Your task to perform on an android device: create a new album in the google photos Image 0: 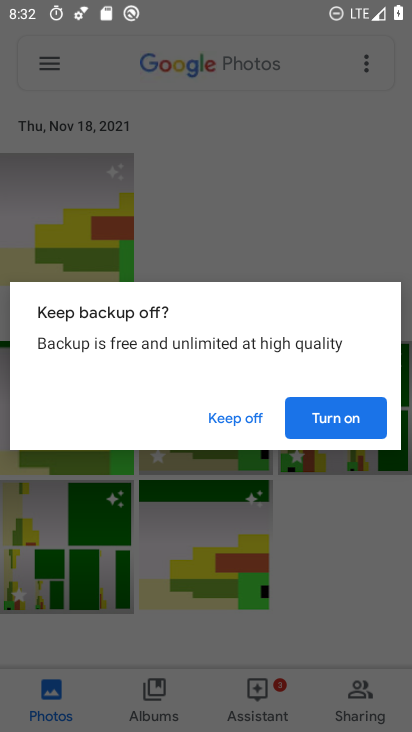
Step 0: press home button
Your task to perform on an android device: create a new album in the google photos Image 1: 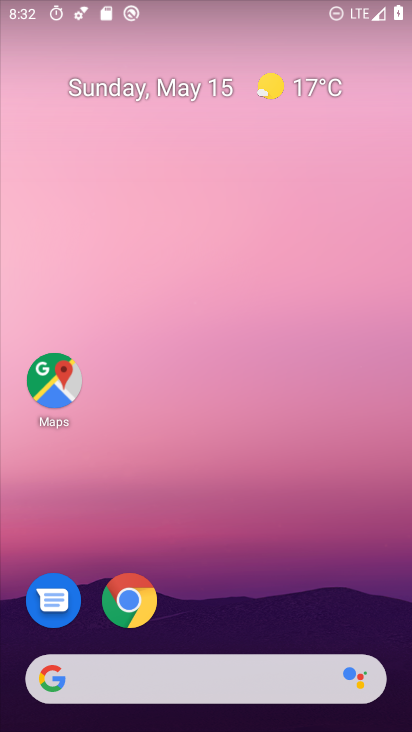
Step 1: drag from (236, 599) to (126, 98)
Your task to perform on an android device: create a new album in the google photos Image 2: 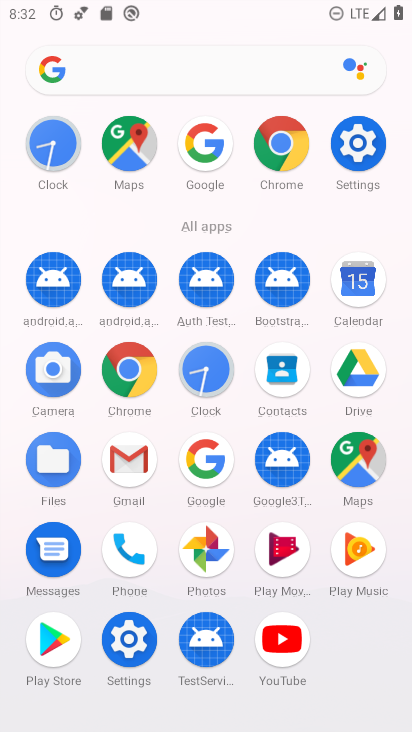
Step 2: click (207, 549)
Your task to perform on an android device: create a new album in the google photos Image 3: 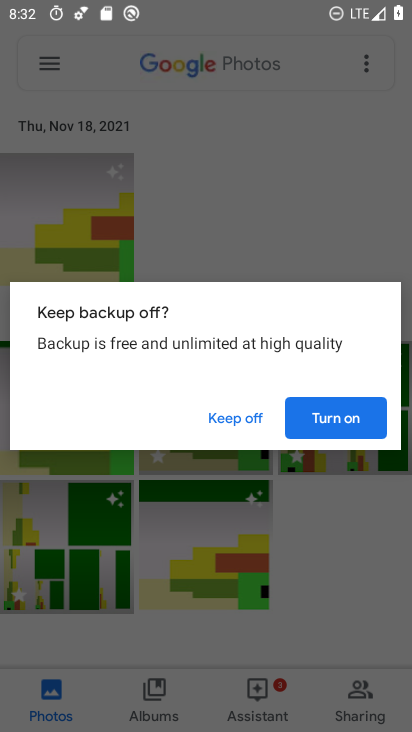
Step 3: click (333, 424)
Your task to perform on an android device: create a new album in the google photos Image 4: 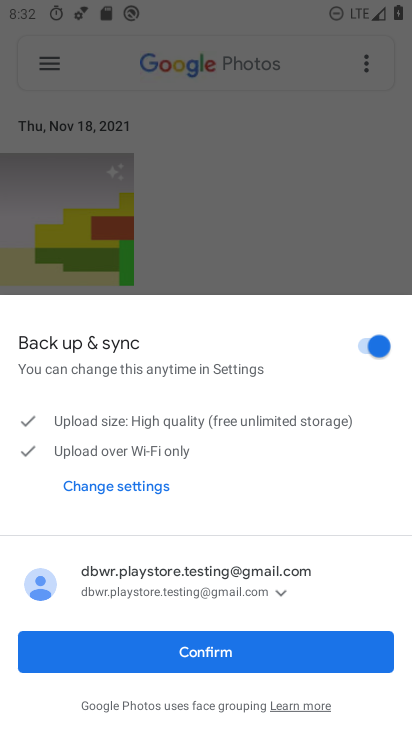
Step 4: click (221, 647)
Your task to perform on an android device: create a new album in the google photos Image 5: 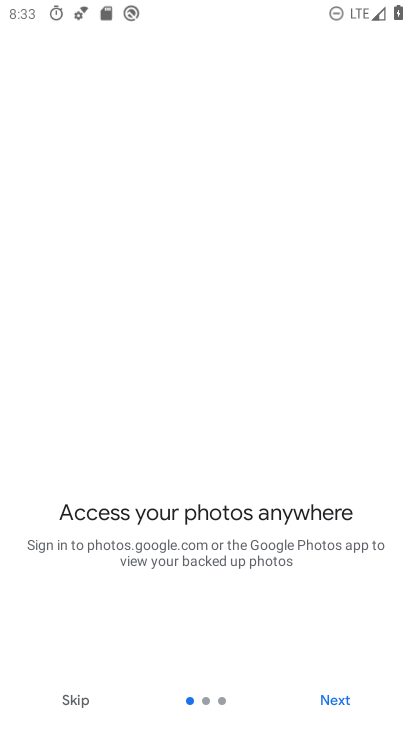
Step 5: click (322, 698)
Your task to perform on an android device: create a new album in the google photos Image 6: 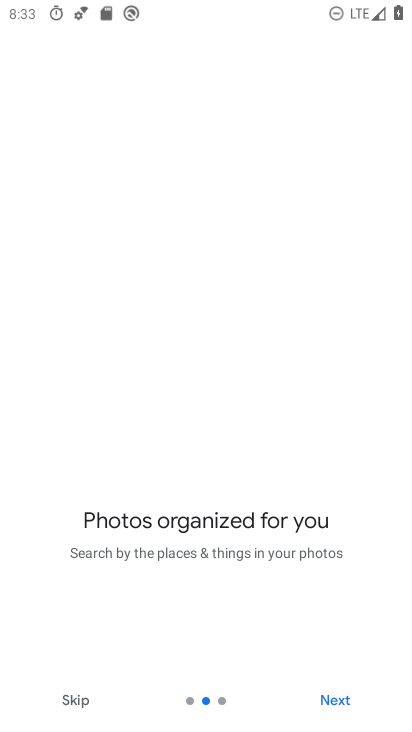
Step 6: click (322, 698)
Your task to perform on an android device: create a new album in the google photos Image 7: 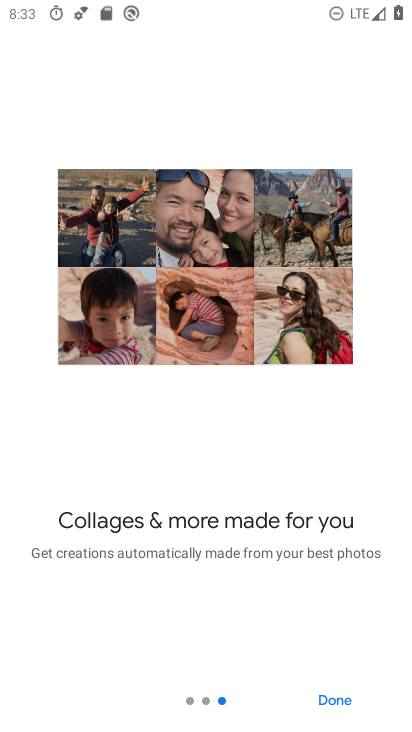
Step 7: click (322, 698)
Your task to perform on an android device: create a new album in the google photos Image 8: 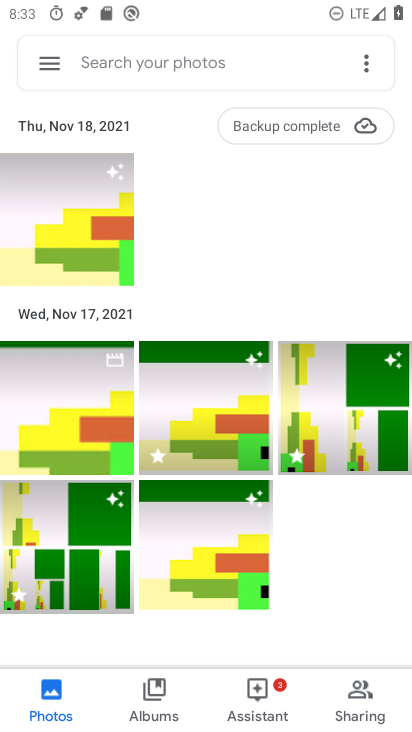
Step 8: click (364, 63)
Your task to perform on an android device: create a new album in the google photos Image 9: 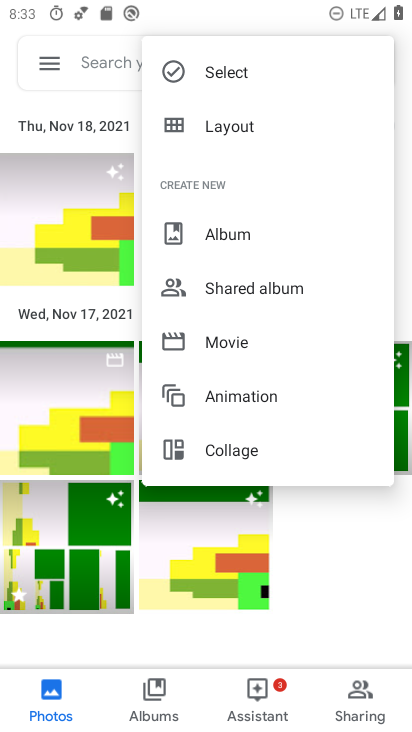
Step 9: click (216, 236)
Your task to perform on an android device: create a new album in the google photos Image 10: 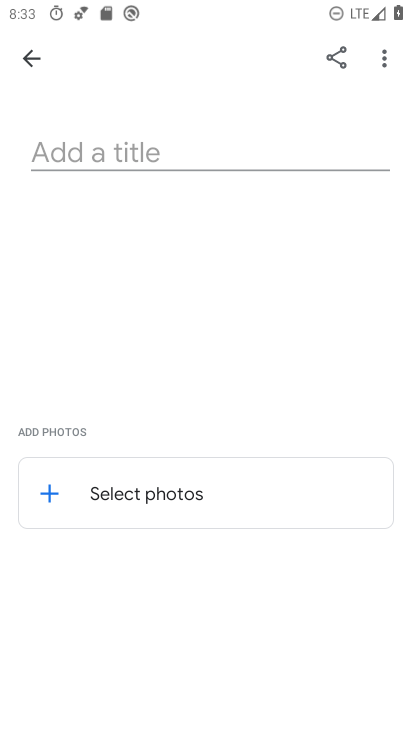
Step 10: click (176, 152)
Your task to perform on an android device: create a new album in the google photos Image 11: 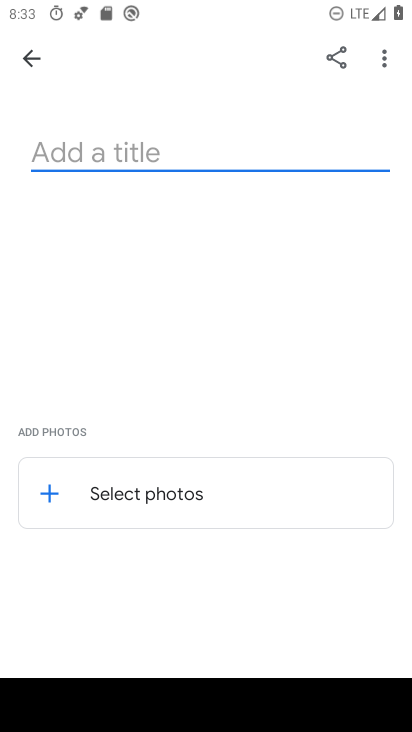
Step 11: type "Lilly"
Your task to perform on an android device: create a new album in the google photos Image 12: 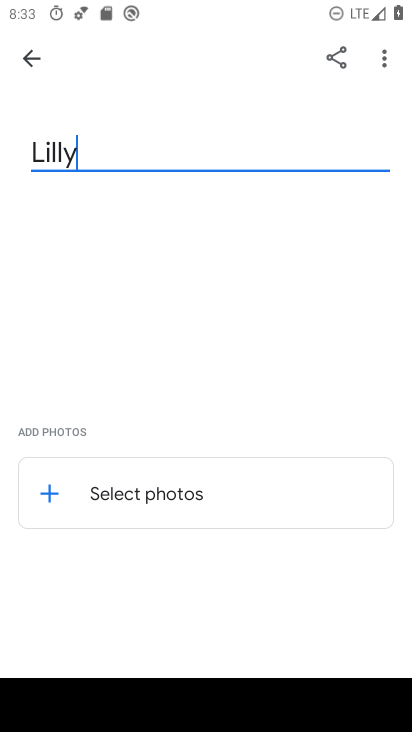
Step 12: type ""
Your task to perform on an android device: create a new album in the google photos Image 13: 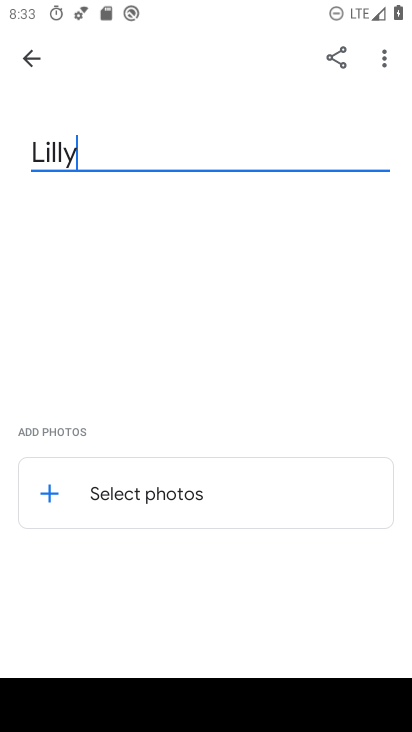
Step 13: click (47, 487)
Your task to perform on an android device: create a new album in the google photos Image 14: 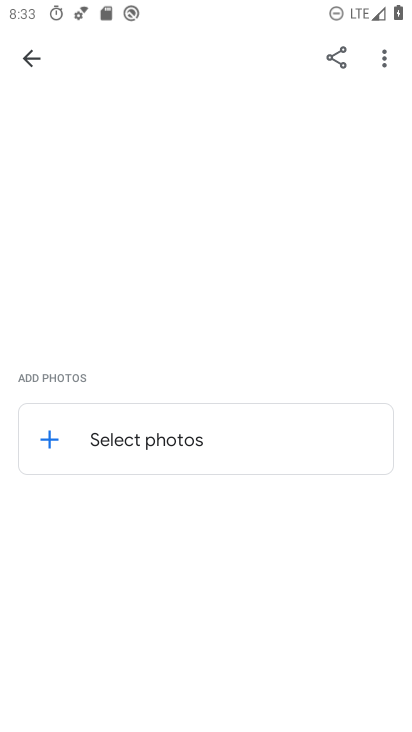
Step 14: click (54, 439)
Your task to perform on an android device: create a new album in the google photos Image 15: 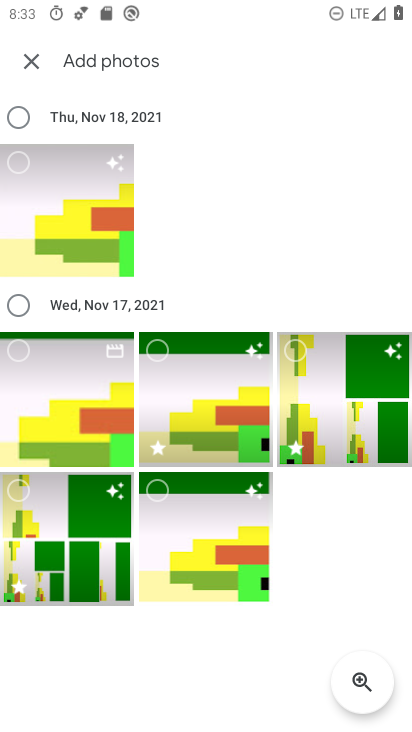
Step 15: click (18, 120)
Your task to perform on an android device: create a new album in the google photos Image 16: 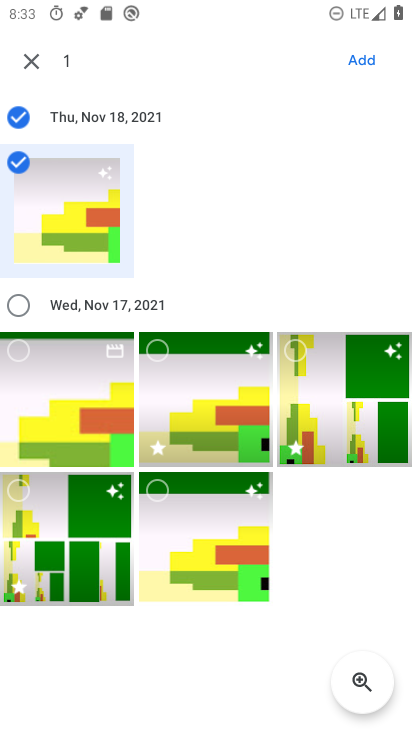
Step 16: click (363, 64)
Your task to perform on an android device: create a new album in the google photos Image 17: 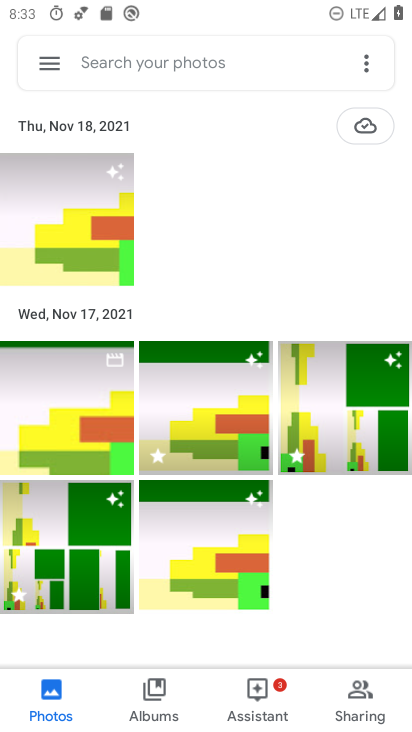
Step 17: task complete